Your task to perform on an android device: Add "amazon basics triple a" to the cart on costco, then select checkout. Image 0: 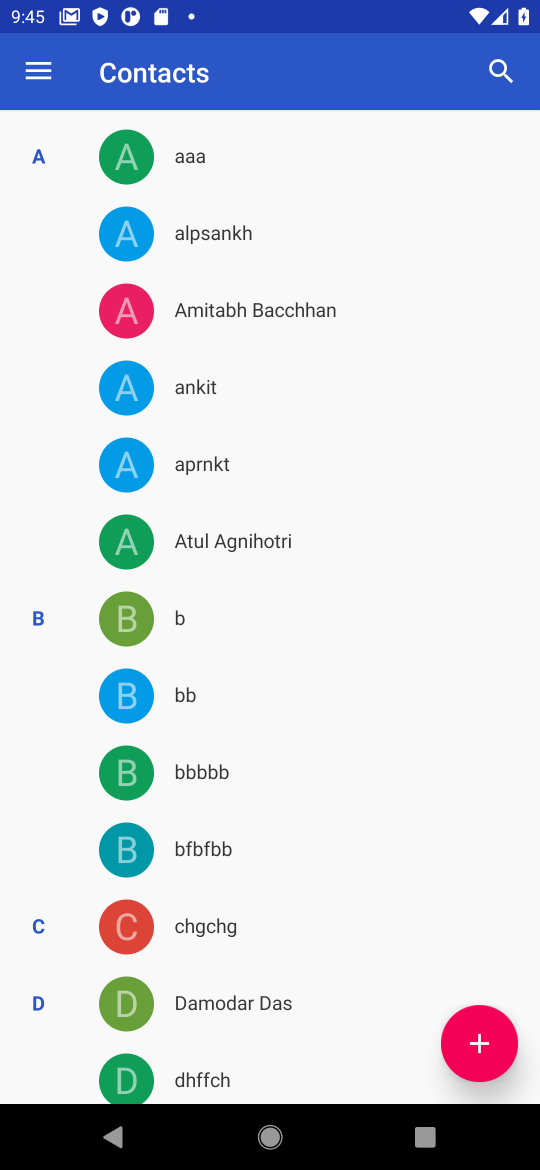
Step 0: press home button
Your task to perform on an android device: Add "amazon basics triple a" to the cart on costco, then select checkout. Image 1: 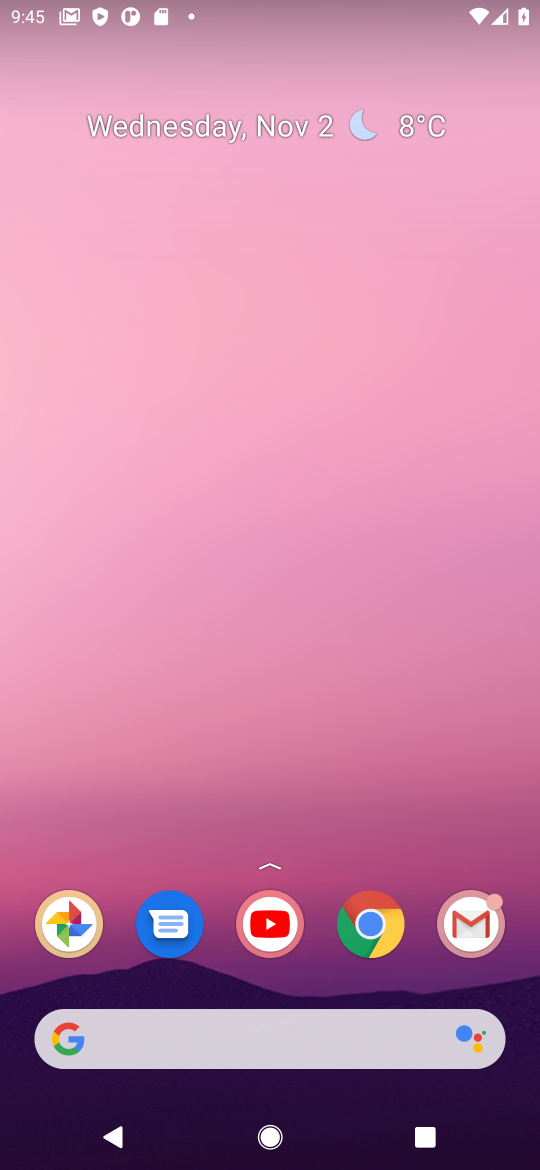
Step 1: click (375, 926)
Your task to perform on an android device: Add "amazon basics triple a" to the cart on costco, then select checkout. Image 2: 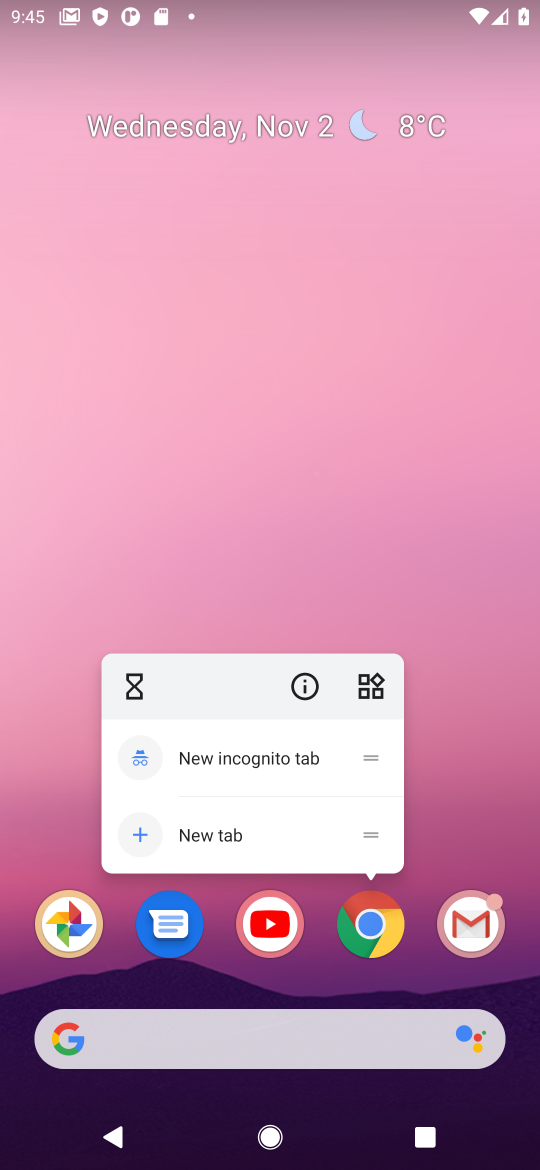
Step 2: click (373, 919)
Your task to perform on an android device: Add "amazon basics triple a" to the cart on costco, then select checkout. Image 3: 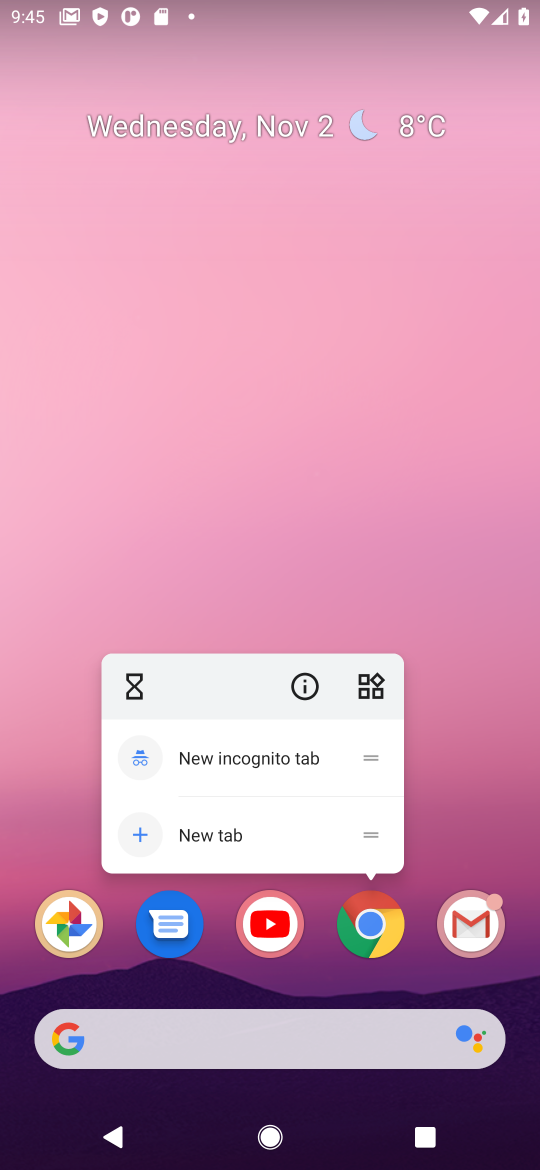
Step 3: click (370, 925)
Your task to perform on an android device: Add "amazon basics triple a" to the cart on costco, then select checkout. Image 4: 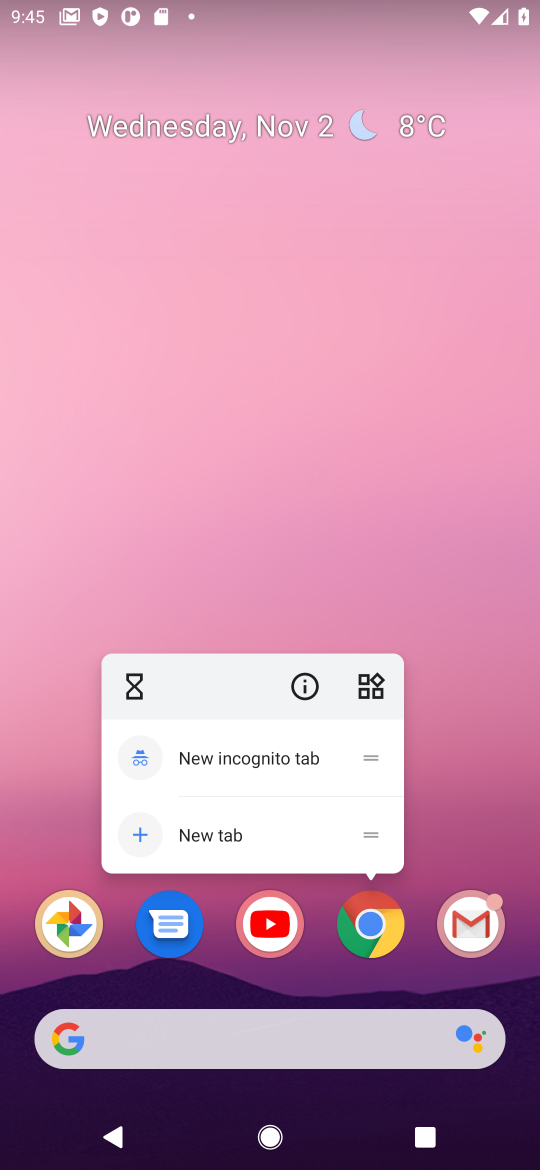
Step 4: click (362, 926)
Your task to perform on an android device: Add "amazon basics triple a" to the cart on costco, then select checkout. Image 5: 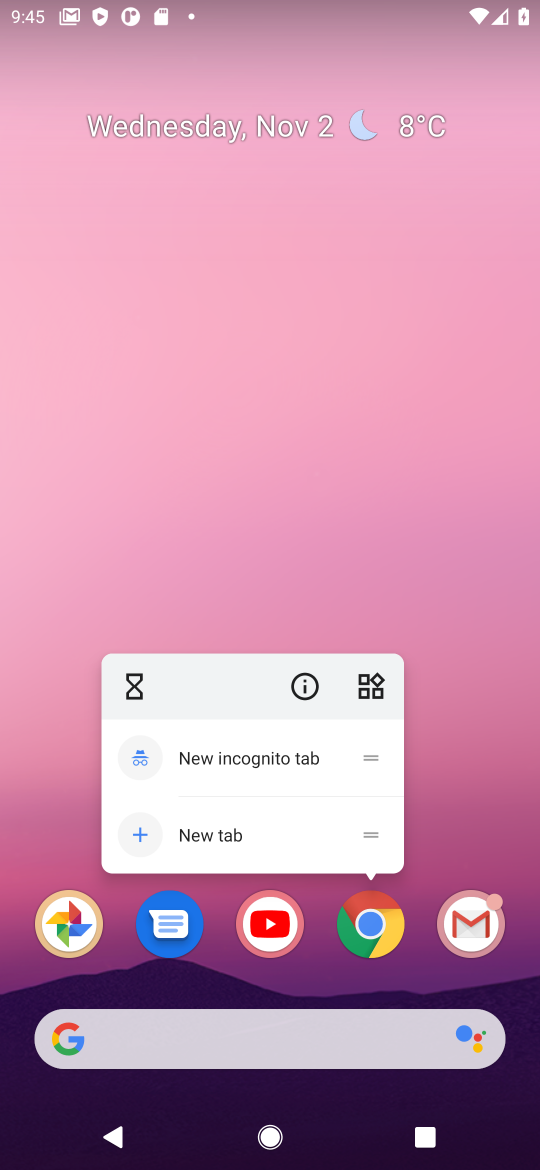
Step 5: click (365, 949)
Your task to perform on an android device: Add "amazon basics triple a" to the cart on costco, then select checkout. Image 6: 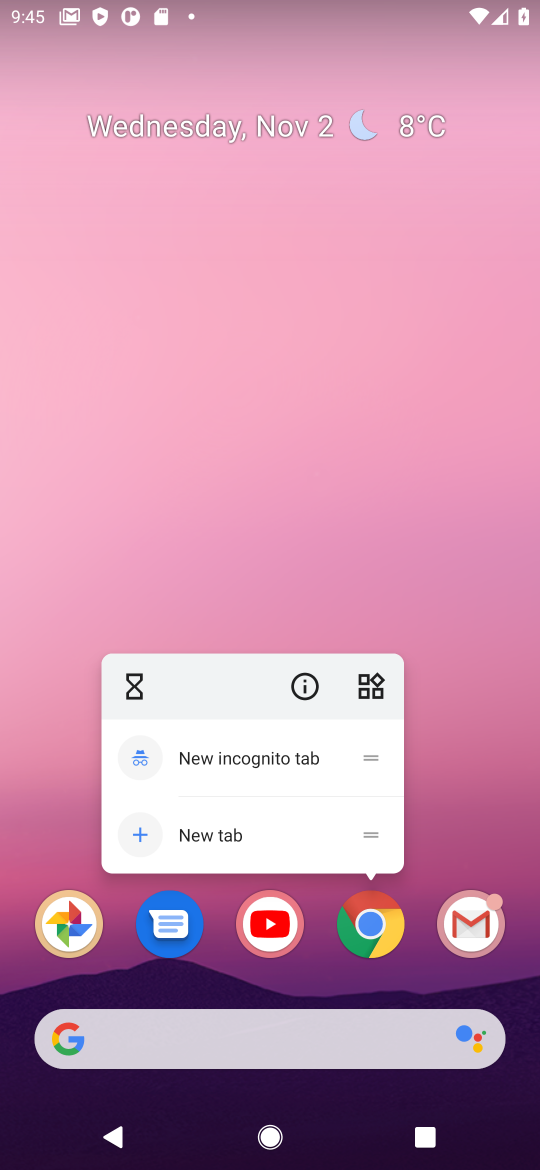
Step 6: click (365, 949)
Your task to perform on an android device: Add "amazon basics triple a" to the cart on costco, then select checkout. Image 7: 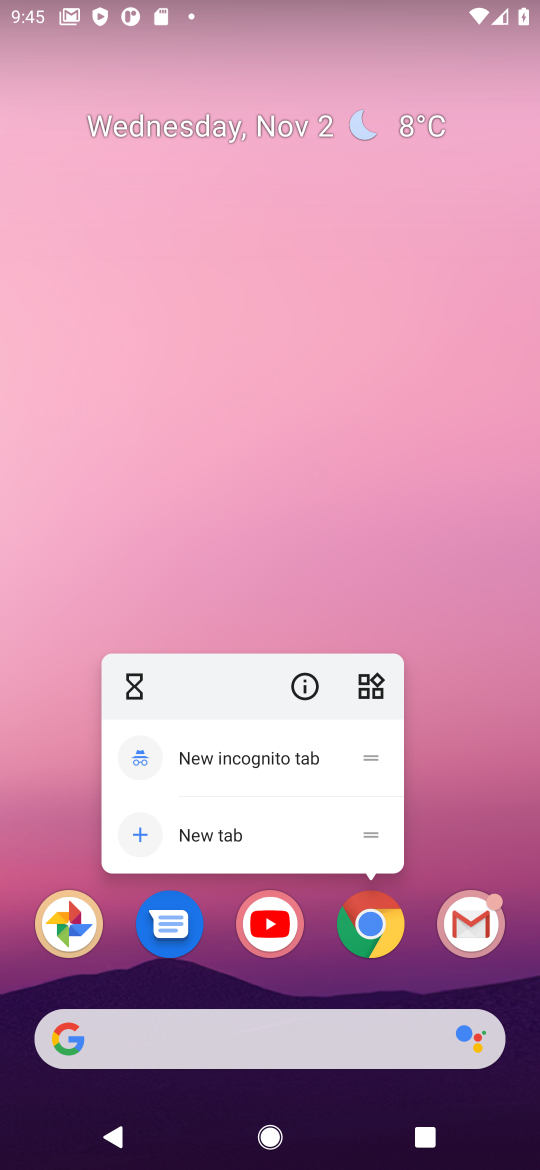
Step 7: click (365, 949)
Your task to perform on an android device: Add "amazon basics triple a" to the cart on costco, then select checkout. Image 8: 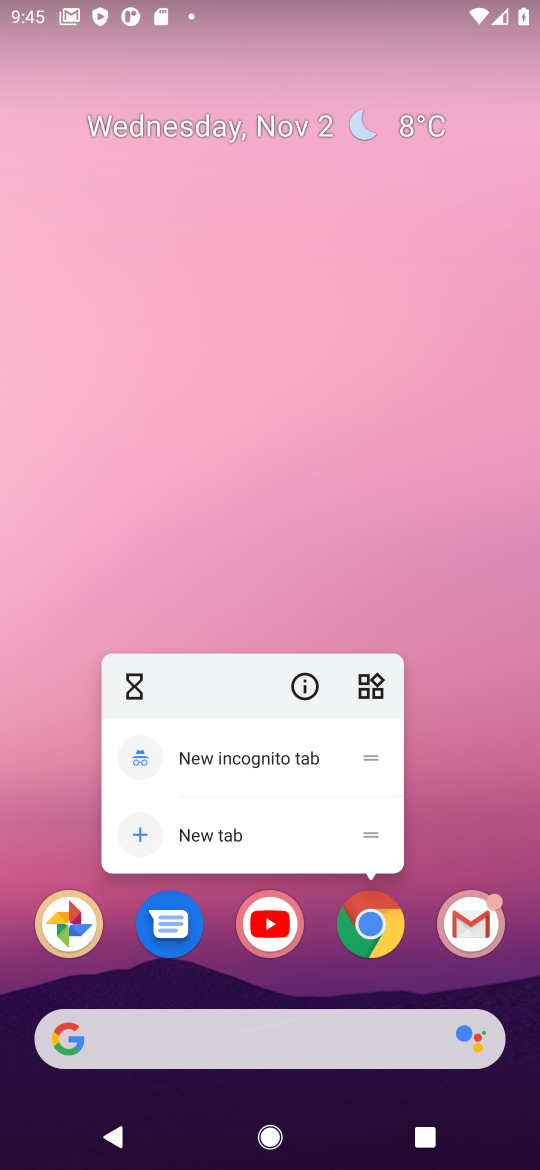
Step 8: click (366, 938)
Your task to perform on an android device: Add "amazon basics triple a" to the cart on costco, then select checkout. Image 9: 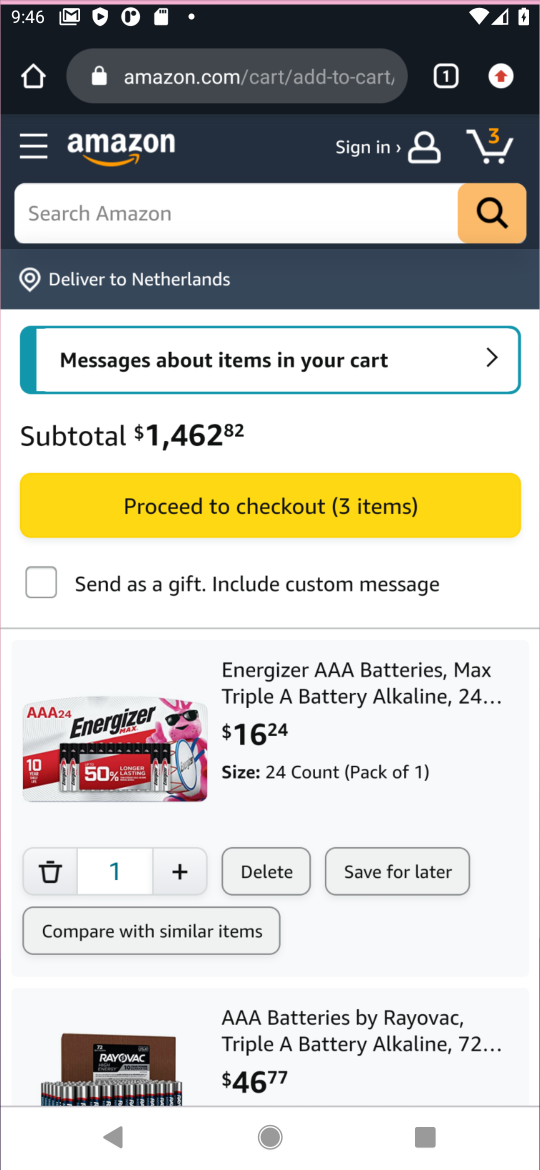
Step 9: press home button
Your task to perform on an android device: Add "amazon basics triple a" to the cart on costco, then select checkout. Image 10: 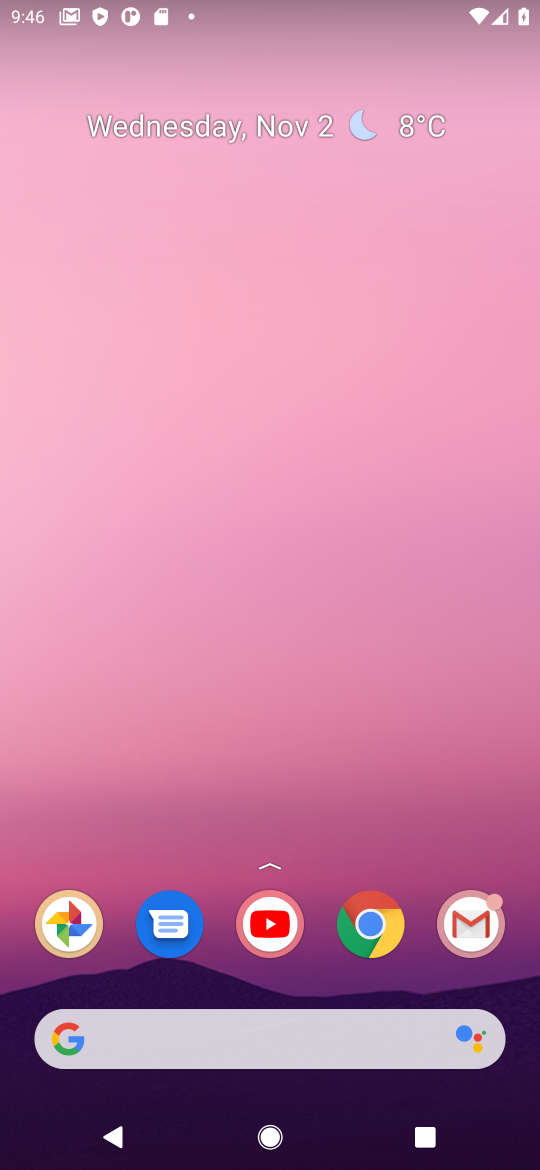
Step 10: click (344, 933)
Your task to perform on an android device: Add "amazon basics triple a" to the cart on costco, then select checkout. Image 11: 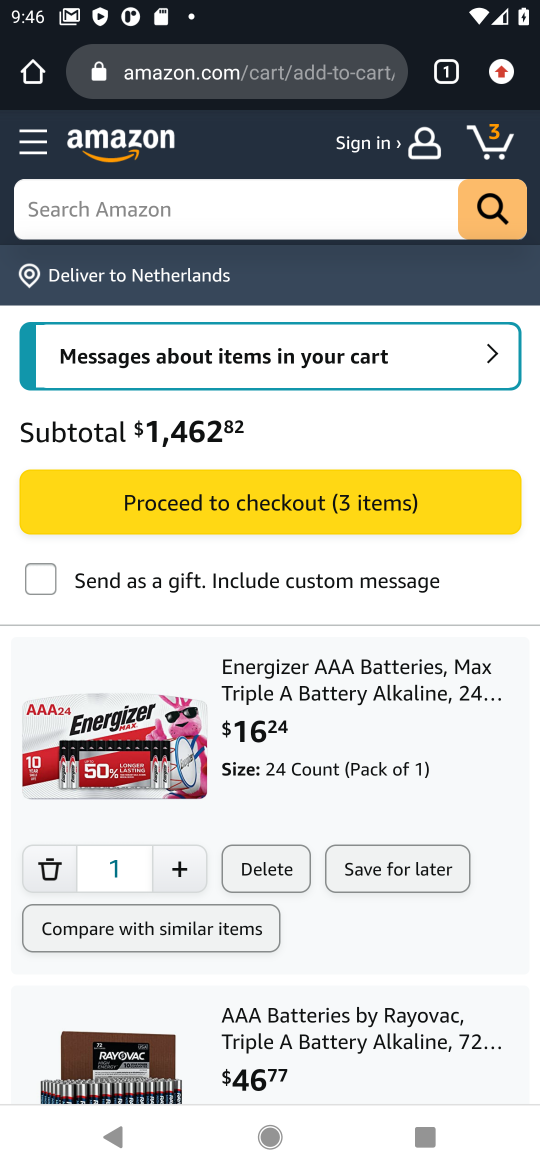
Step 11: click (151, 59)
Your task to perform on an android device: Add "amazon basics triple a" to the cart on costco, then select checkout. Image 12: 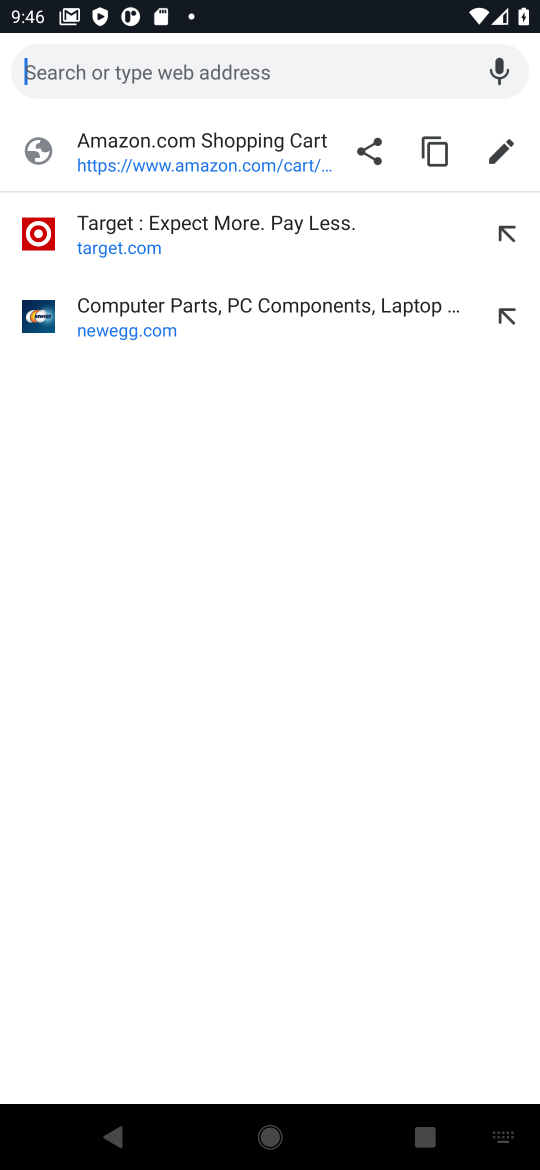
Step 12: type "costco"
Your task to perform on an android device: Add "amazon basics triple a" to the cart on costco, then select checkout. Image 13: 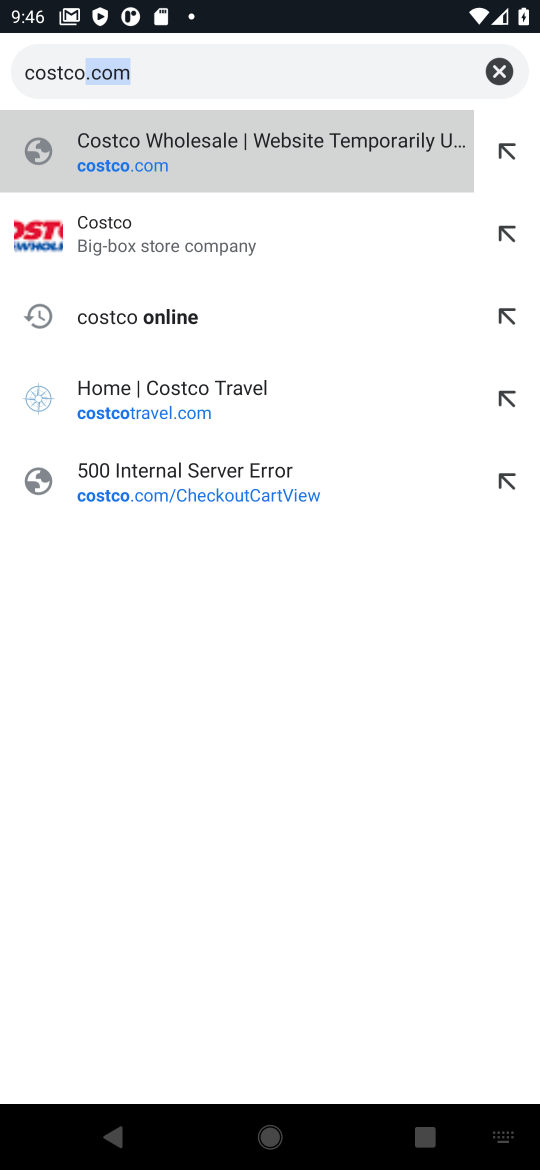
Step 13: click (103, 243)
Your task to perform on an android device: Add "amazon basics triple a" to the cart on costco, then select checkout. Image 14: 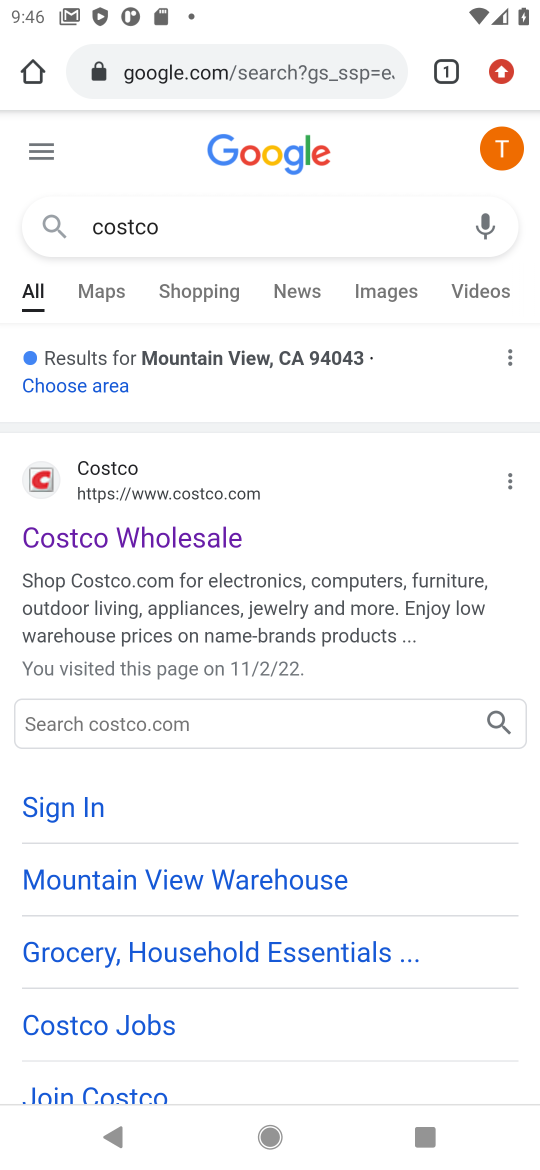
Step 14: click (157, 540)
Your task to perform on an android device: Add "amazon basics triple a" to the cart on costco, then select checkout. Image 15: 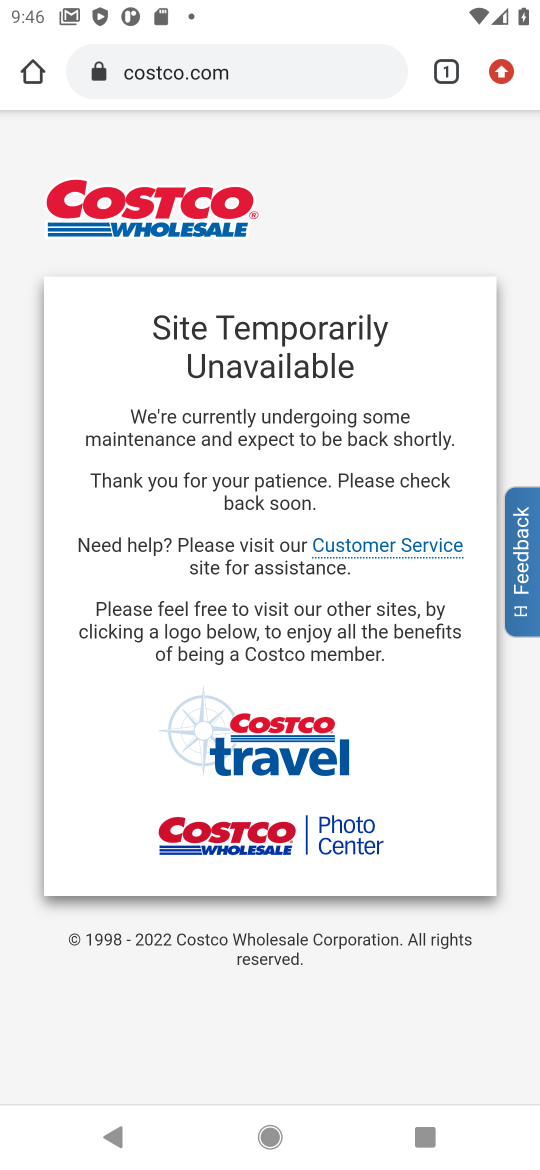
Step 15: press back button
Your task to perform on an android device: Add "amazon basics triple a" to the cart on costco, then select checkout. Image 16: 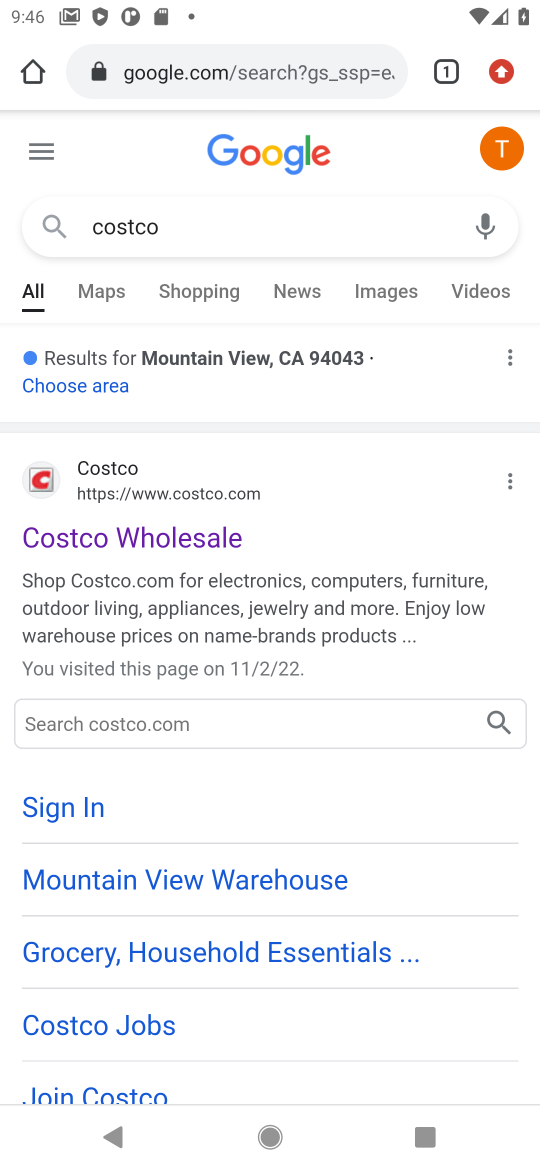
Step 16: drag from (265, 805) to (221, 100)
Your task to perform on an android device: Add "amazon basics triple a" to the cart on costco, then select checkout. Image 17: 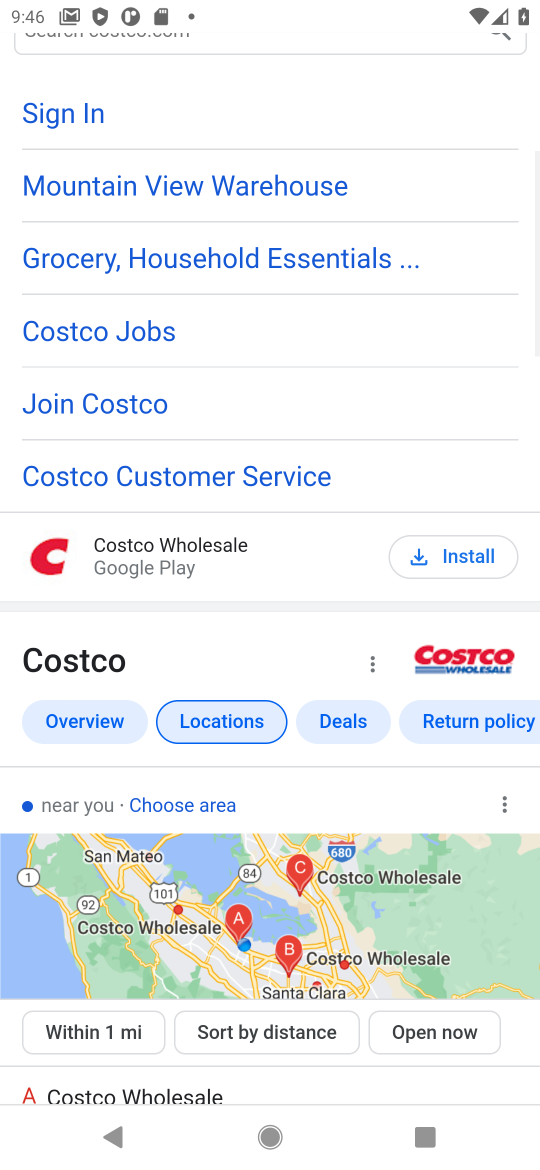
Step 17: drag from (220, 970) to (104, 255)
Your task to perform on an android device: Add "amazon basics triple a" to the cart on costco, then select checkout. Image 18: 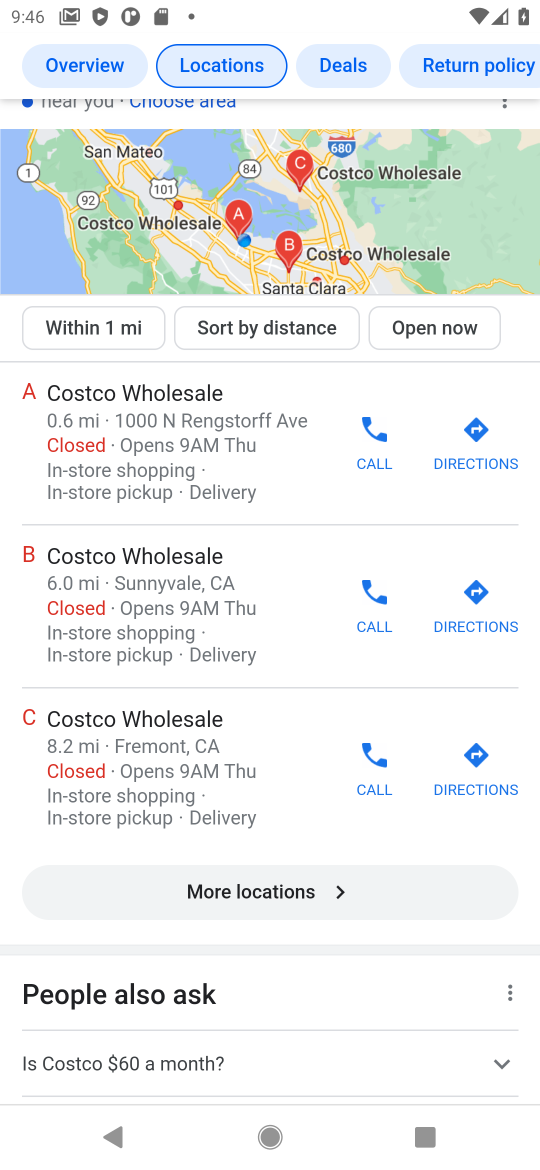
Step 18: drag from (165, 847) to (62, 418)
Your task to perform on an android device: Add "amazon basics triple a" to the cart on costco, then select checkout. Image 19: 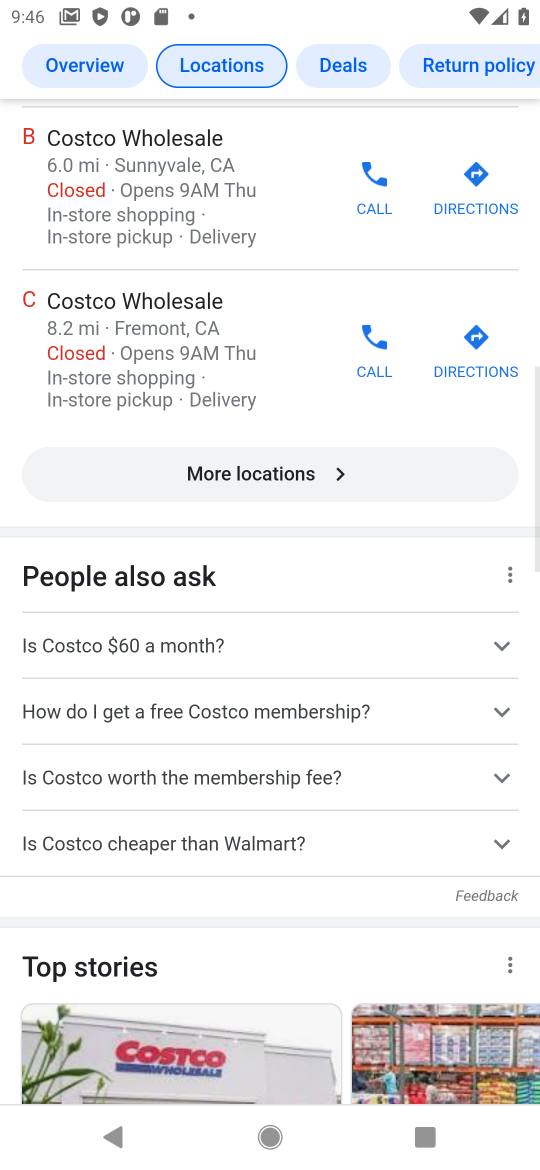
Step 19: drag from (99, 876) to (86, 253)
Your task to perform on an android device: Add "amazon basics triple a" to the cart on costco, then select checkout. Image 20: 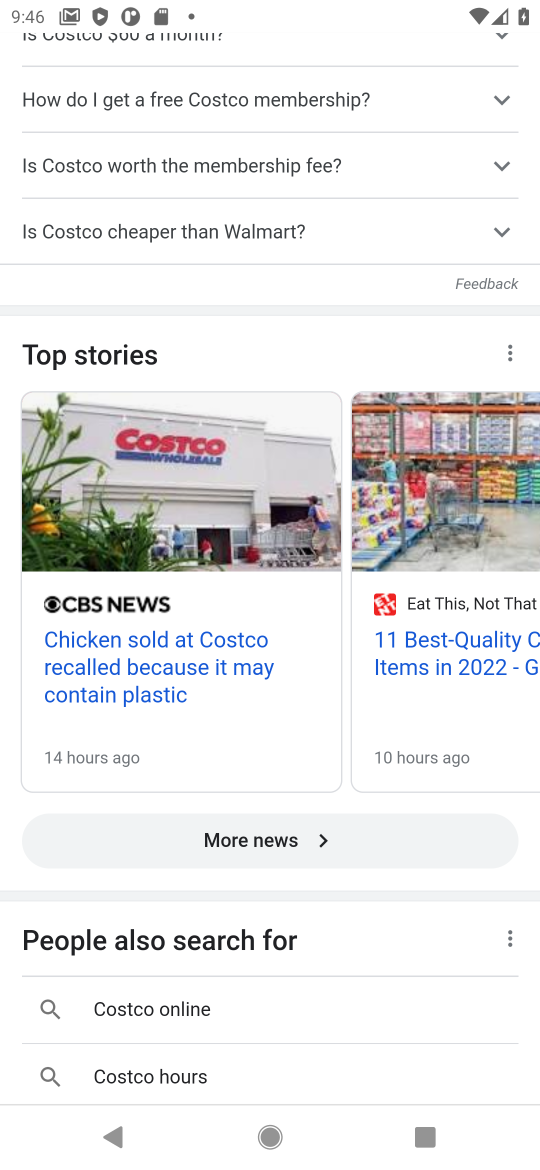
Step 20: drag from (77, 979) to (136, 224)
Your task to perform on an android device: Add "amazon basics triple a" to the cart on costco, then select checkout. Image 21: 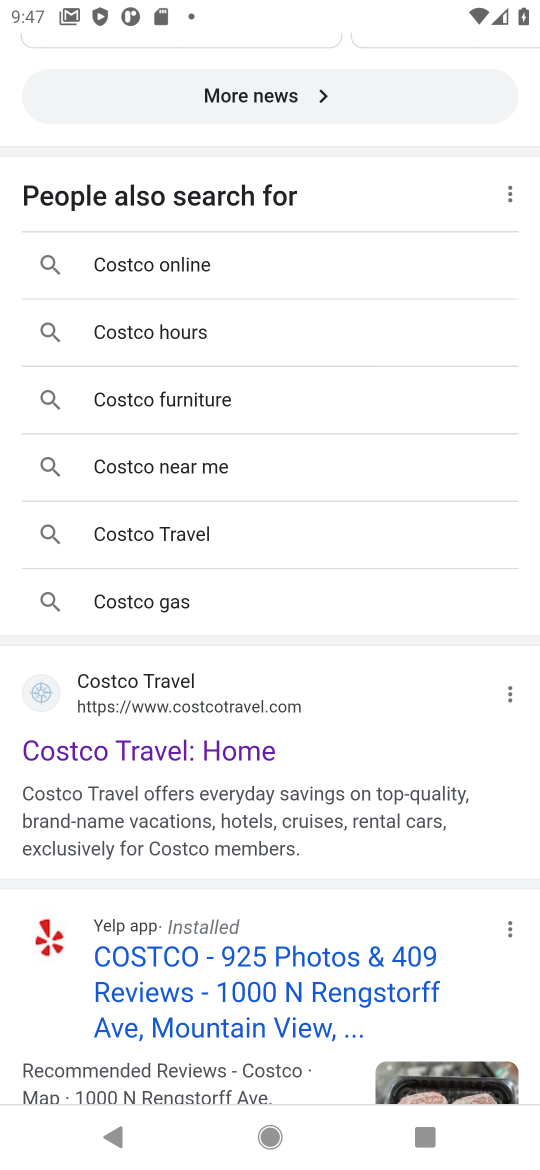
Step 21: drag from (203, 1024) to (186, 295)
Your task to perform on an android device: Add "amazon basics triple a" to the cart on costco, then select checkout. Image 22: 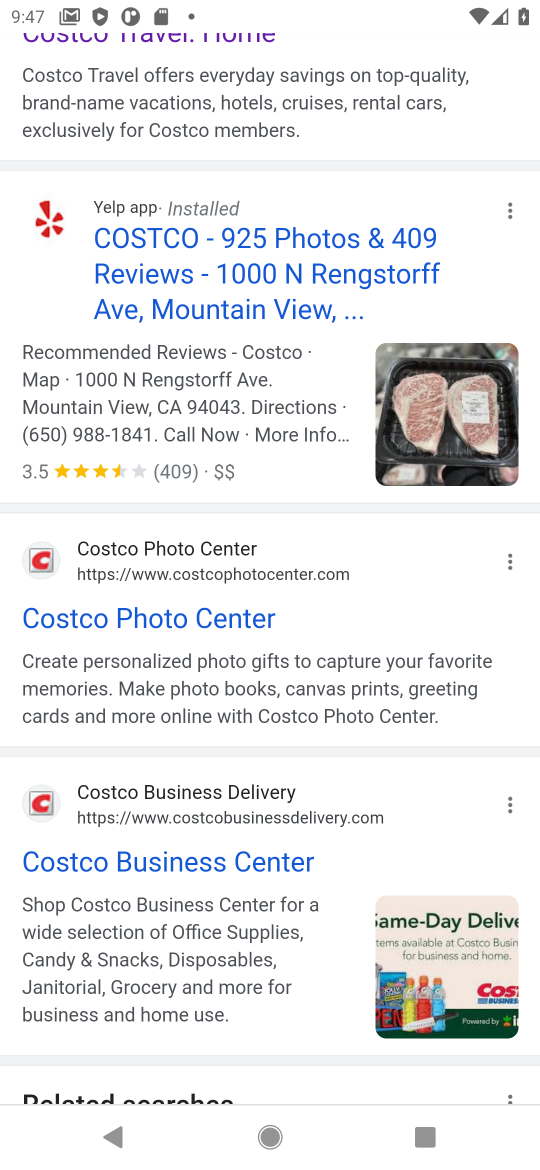
Step 22: click (146, 622)
Your task to perform on an android device: Add "amazon basics triple a" to the cart on costco, then select checkout. Image 23: 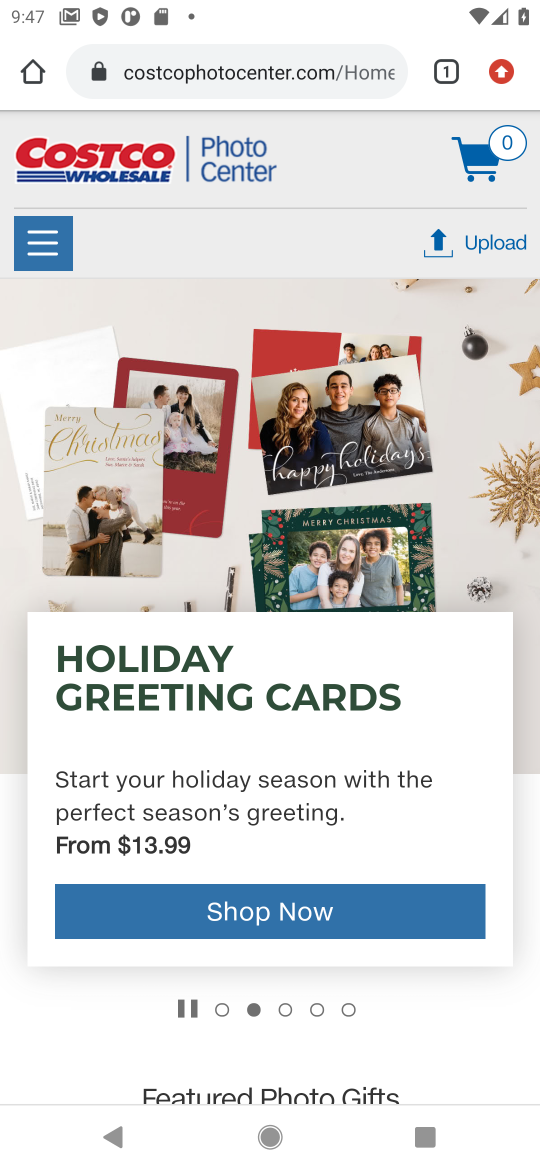
Step 23: task complete